Your task to perform on an android device: set the timer Image 0: 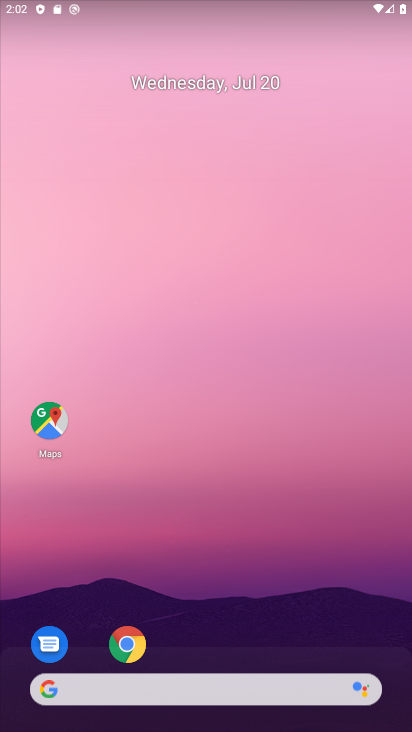
Step 0: drag from (224, 677) to (224, 104)
Your task to perform on an android device: set the timer Image 1: 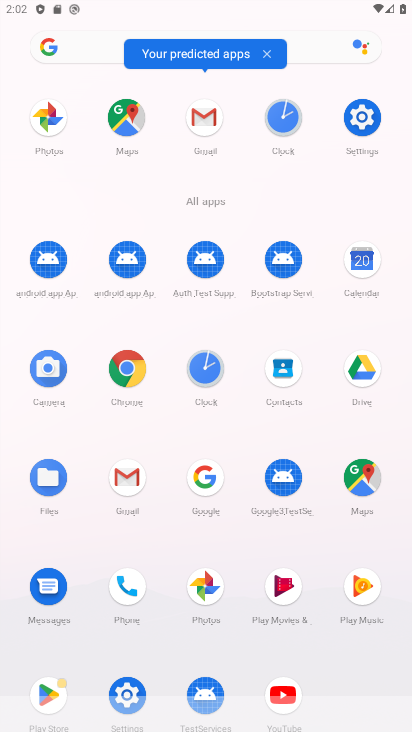
Step 1: click (291, 126)
Your task to perform on an android device: set the timer Image 2: 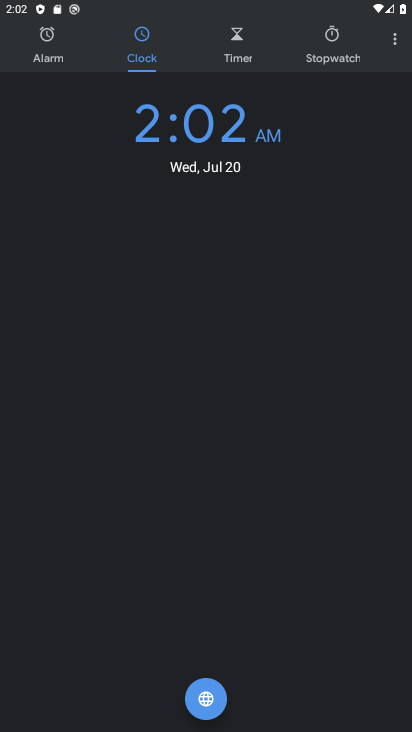
Step 2: click (245, 49)
Your task to perform on an android device: set the timer Image 3: 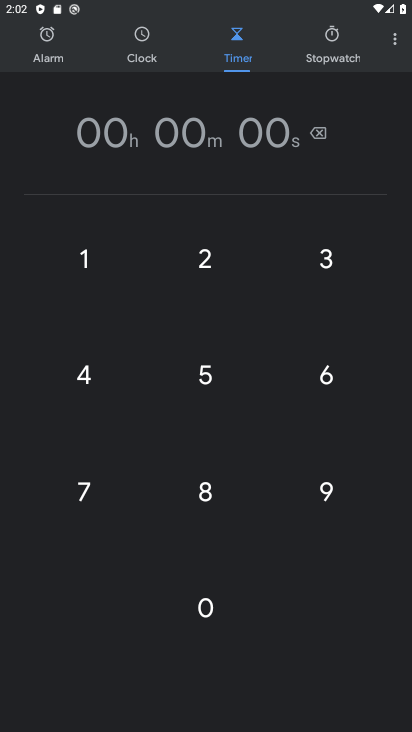
Step 3: click (198, 259)
Your task to perform on an android device: set the timer Image 4: 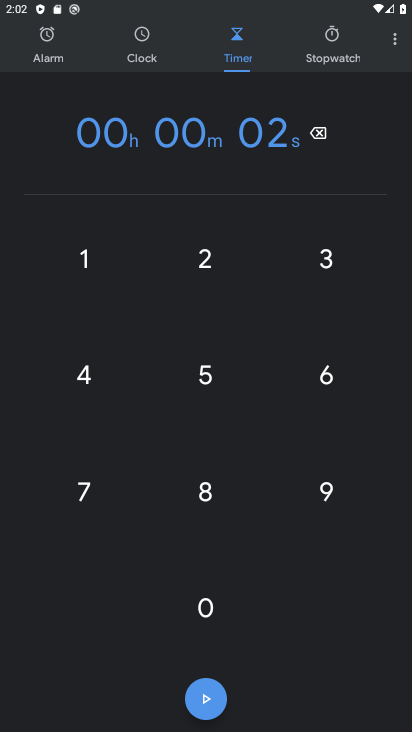
Step 4: click (213, 371)
Your task to perform on an android device: set the timer Image 5: 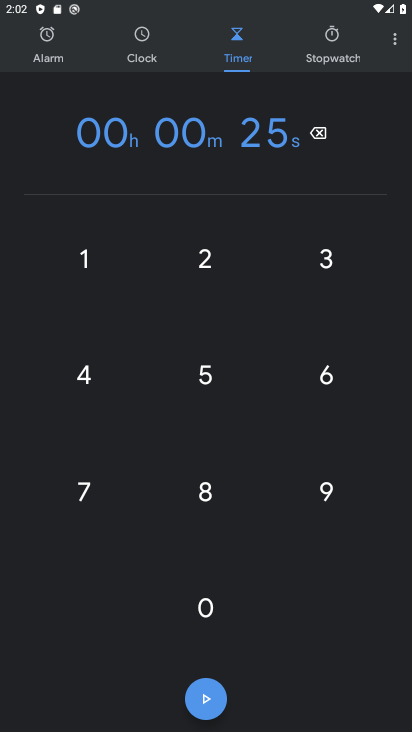
Step 5: click (93, 369)
Your task to perform on an android device: set the timer Image 6: 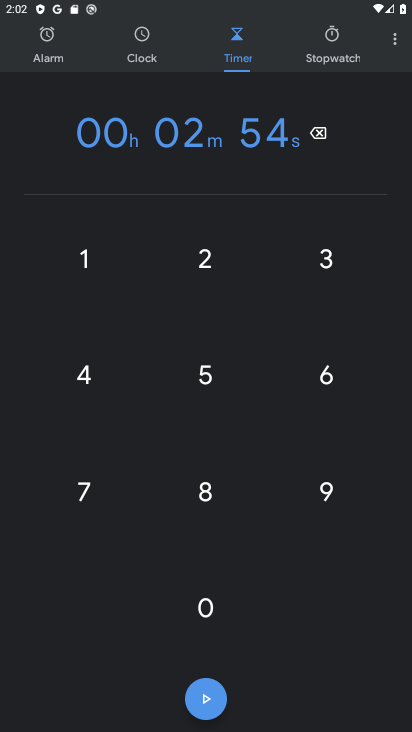
Step 6: click (211, 381)
Your task to perform on an android device: set the timer Image 7: 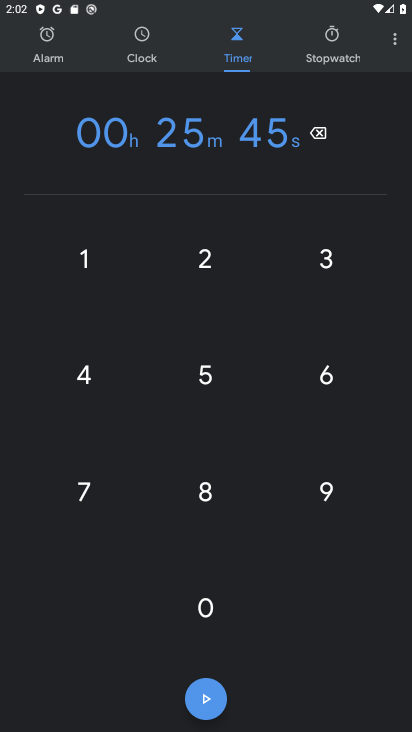
Step 7: click (335, 377)
Your task to perform on an android device: set the timer Image 8: 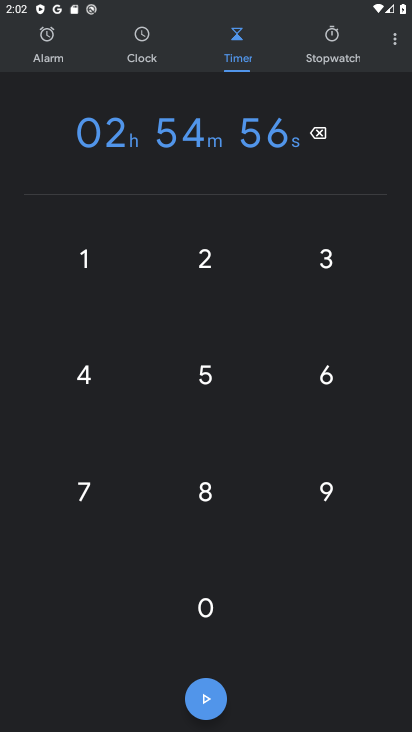
Step 8: click (209, 261)
Your task to perform on an android device: set the timer Image 9: 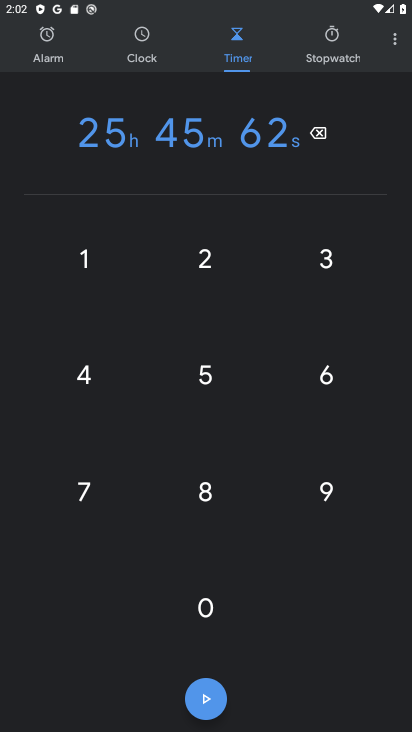
Step 9: click (207, 697)
Your task to perform on an android device: set the timer Image 10: 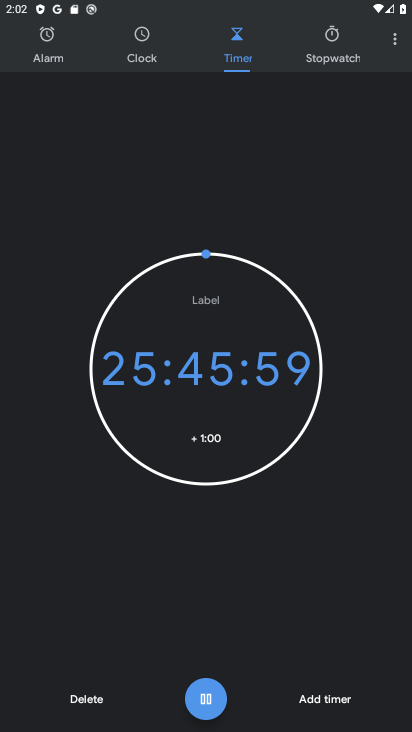
Step 10: task complete